Your task to perform on an android device: Go to notification settings Image 0: 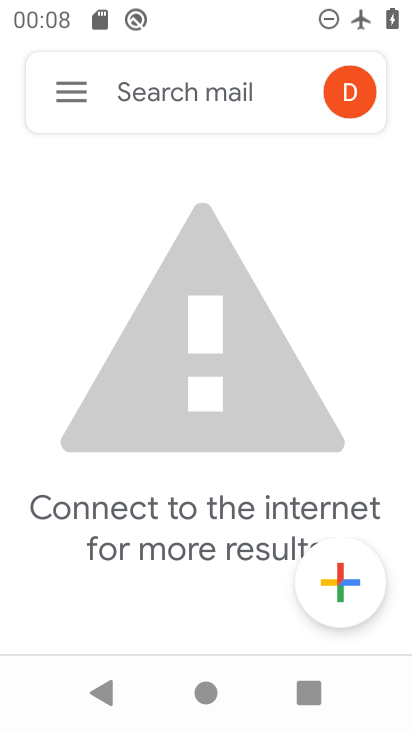
Step 0: press home button
Your task to perform on an android device: Go to notification settings Image 1: 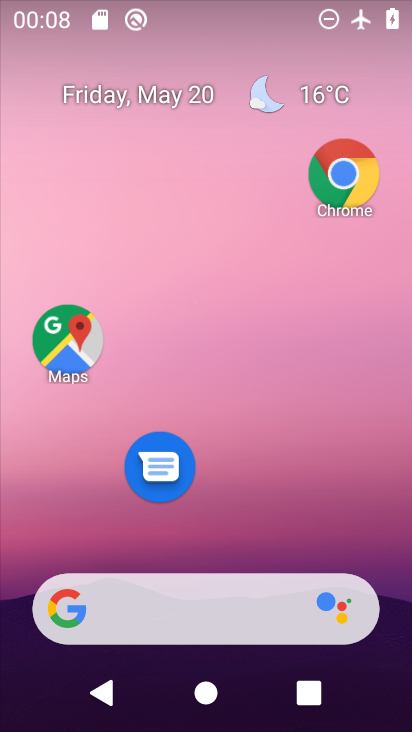
Step 1: drag from (282, 419) to (244, 182)
Your task to perform on an android device: Go to notification settings Image 2: 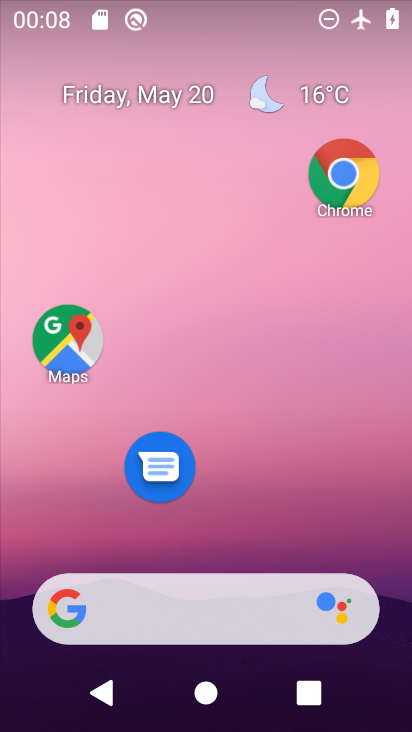
Step 2: drag from (273, 472) to (272, 184)
Your task to perform on an android device: Go to notification settings Image 3: 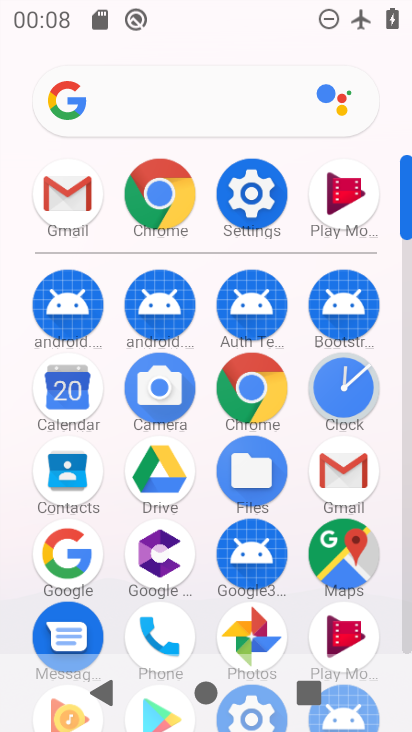
Step 3: click (251, 198)
Your task to perform on an android device: Go to notification settings Image 4: 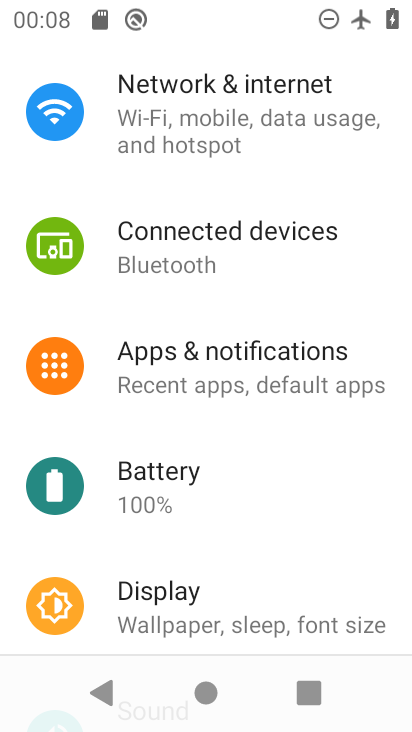
Step 4: drag from (245, 206) to (220, 301)
Your task to perform on an android device: Go to notification settings Image 5: 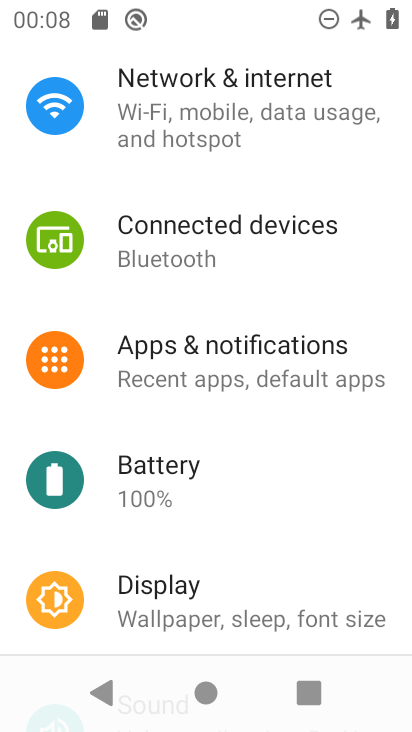
Step 5: click (233, 111)
Your task to perform on an android device: Go to notification settings Image 6: 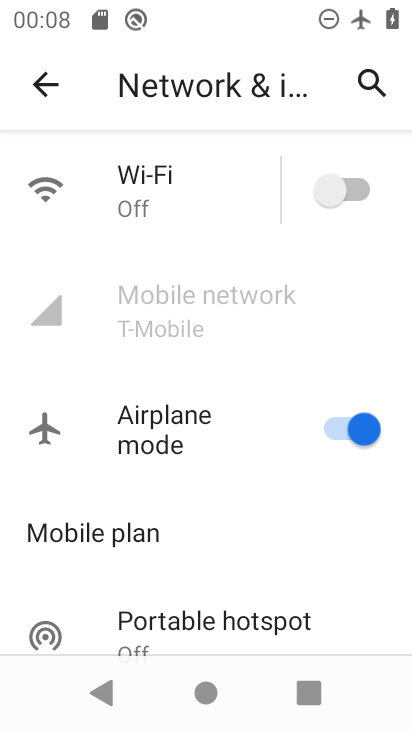
Step 6: click (75, 92)
Your task to perform on an android device: Go to notification settings Image 7: 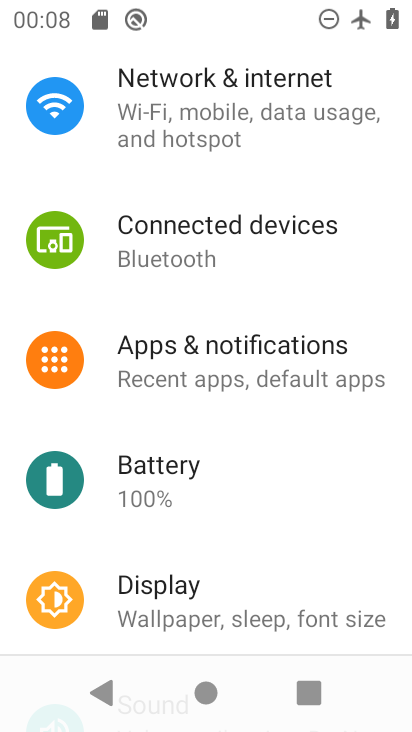
Step 7: click (193, 343)
Your task to perform on an android device: Go to notification settings Image 8: 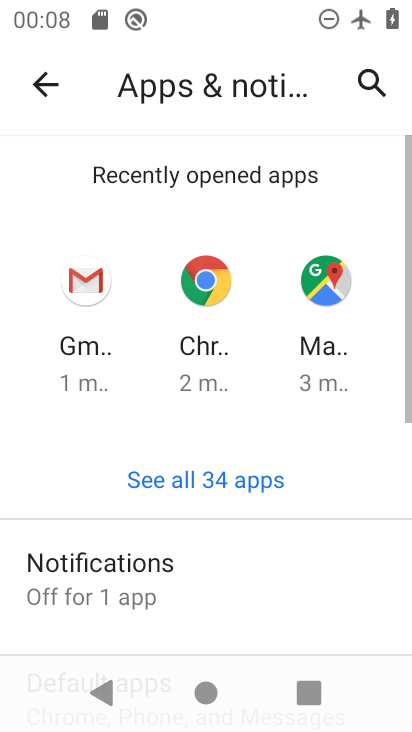
Step 8: click (216, 582)
Your task to perform on an android device: Go to notification settings Image 9: 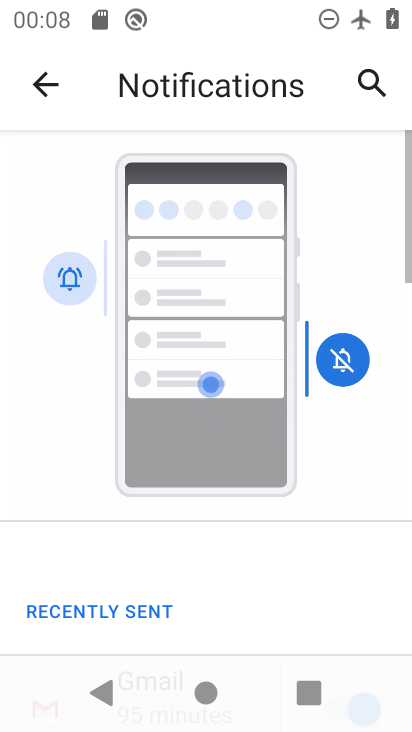
Step 9: task complete